Your task to perform on an android device: change alarm snooze length Image 0: 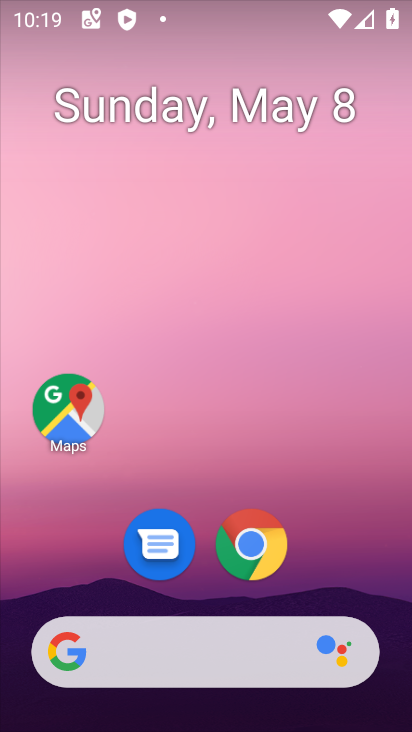
Step 0: drag from (359, 569) to (275, 210)
Your task to perform on an android device: change alarm snooze length Image 1: 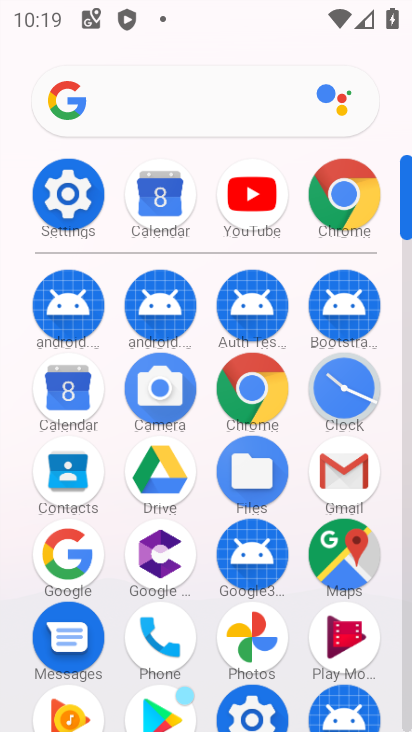
Step 1: click (366, 417)
Your task to perform on an android device: change alarm snooze length Image 2: 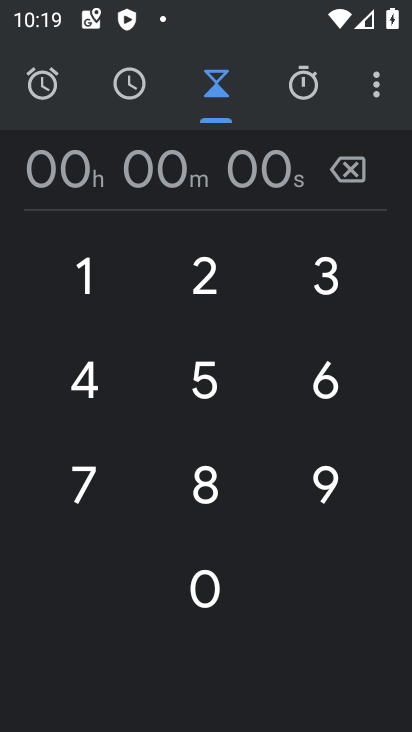
Step 2: click (374, 93)
Your task to perform on an android device: change alarm snooze length Image 3: 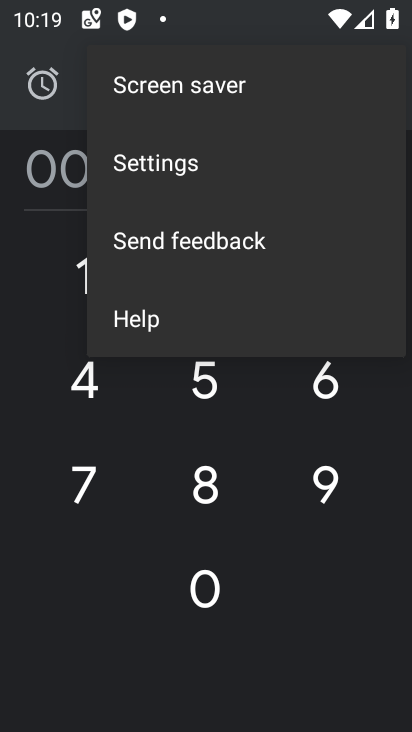
Step 3: click (315, 164)
Your task to perform on an android device: change alarm snooze length Image 4: 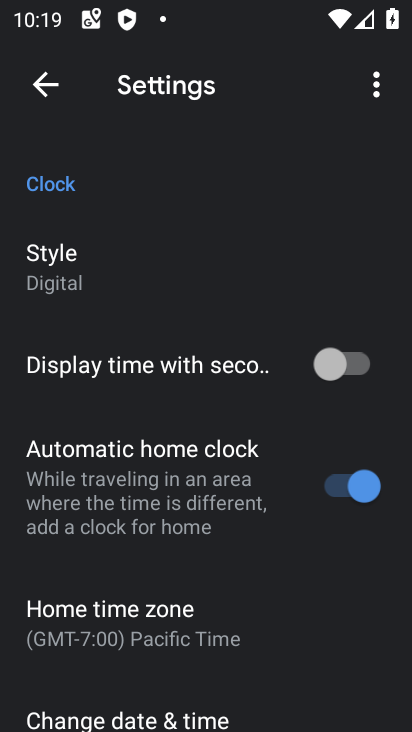
Step 4: press back button
Your task to perform on an android device: change alarm snooze length Image 5: 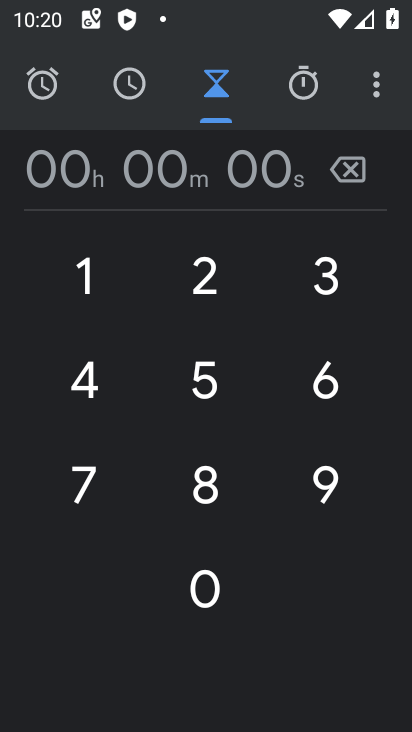
Step 5: click (365, 87)
Your task to perform on an android device: change alarm snooze length Image 6: 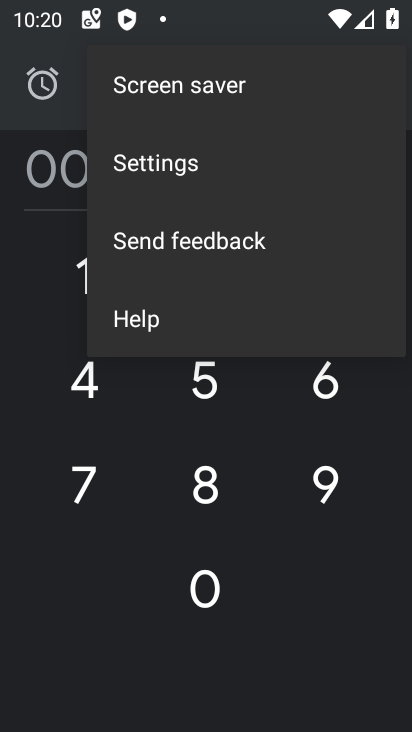
Step 6: click (207, 157)
Your task to perform on an android device: change alarm snooze length Image 7: 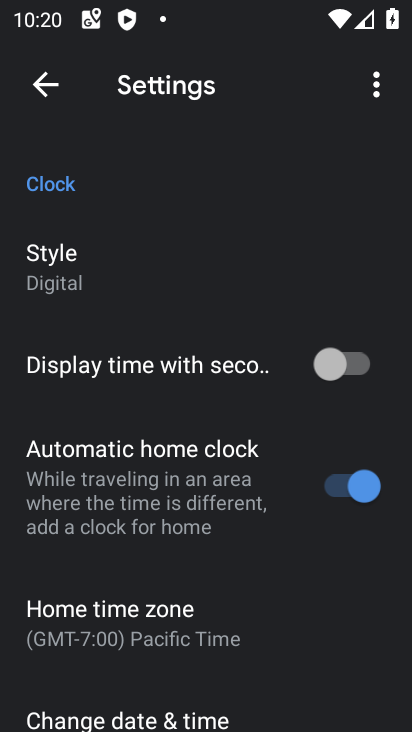
Step 7: task complete